Your task to perform on an android device: open wifi settings Image 0: 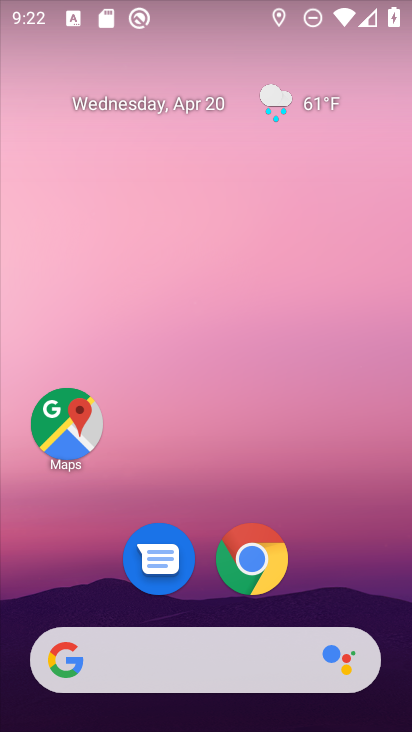
Step 0: drag from (391, 622) to (361, 280)
Your task to perform on an android device: open wifi settings Image 1: 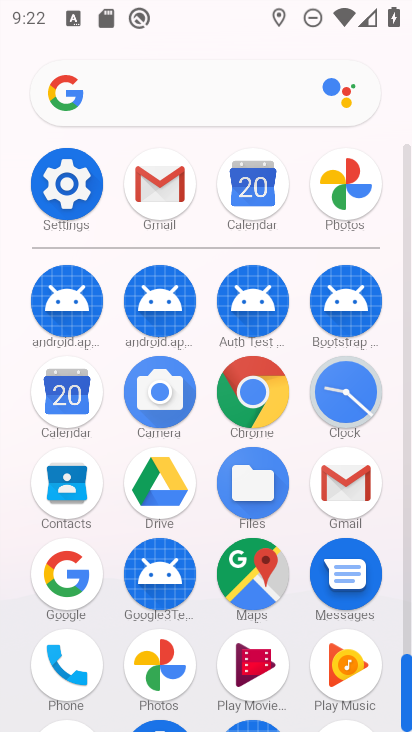
Step 1: drag from (405, 643) to (397, 574)
Your task to perform on an android device: open wifi settings Image 2: 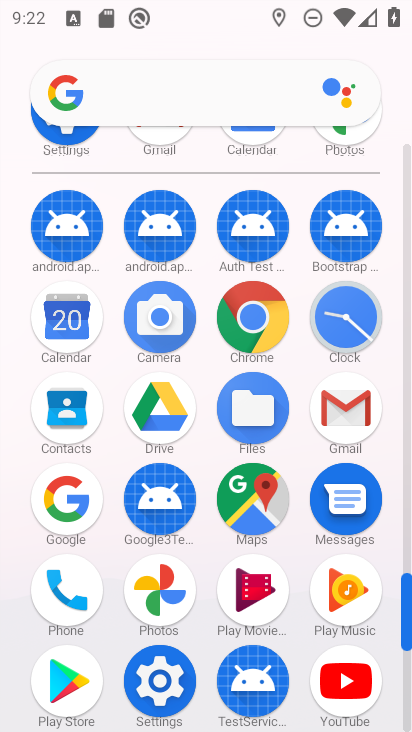
Step 2: click (159, 684)
Your task to perform on an android device: open wifi settings Image 3: 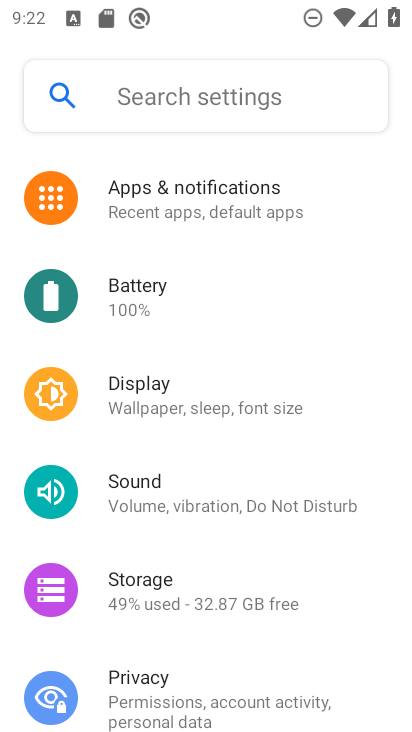
Step 3: drag from (242, 240) to (240, 440)
Your task to perform on an android device: open wifi settings Image 4: 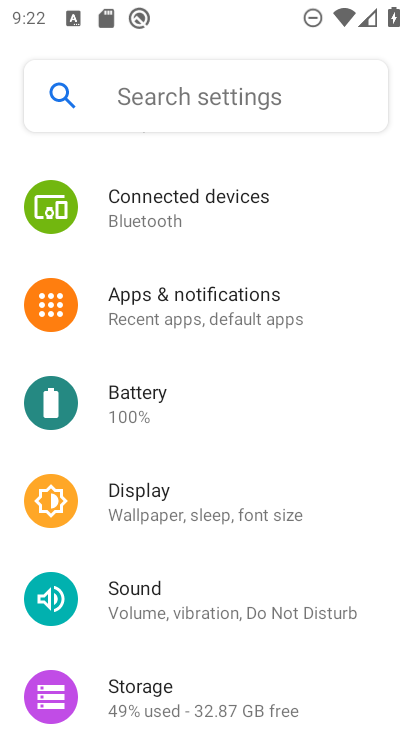
Step 4: drag from (258, 356) to (225, 599)
Your task to perform on an android device: open wifi settings Image 5: 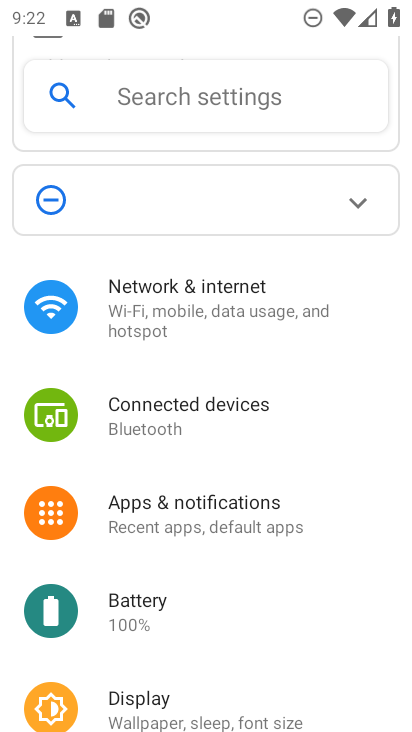
Step 5: click (165, 289)
Your task to perform on an android device: open wifi settings Image 6: 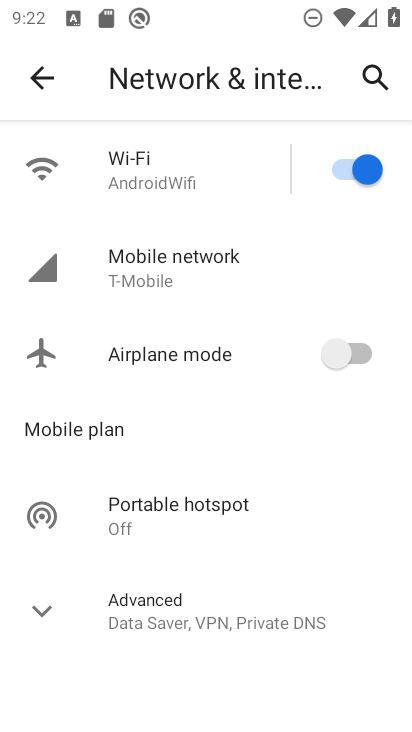
Step 6: click (134, 168)
Your task to perform on an android device: open wifi settings Image 7: 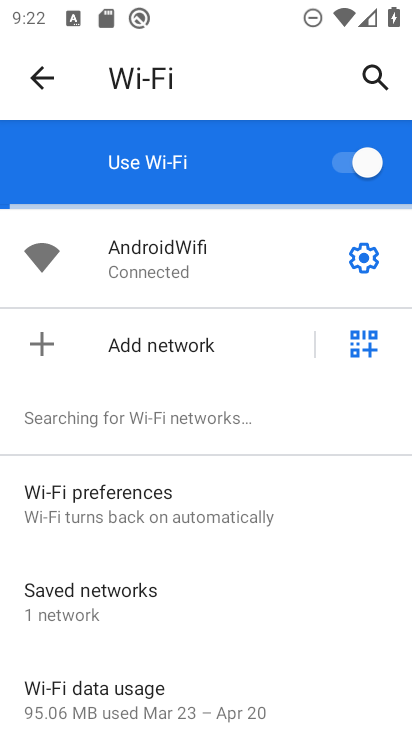
Step 7: drag from (207, 610) to (224, 641)
Your task to perform on an android device: open wifi settings Image 8: 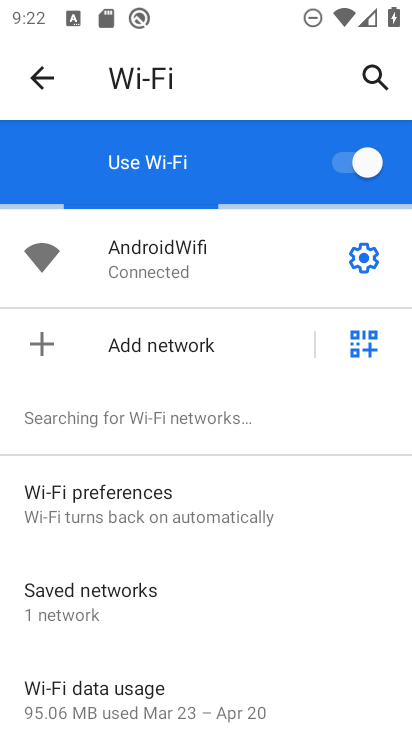
Step 8: click (363, 258)
Your task to perform on an android device: open wifi settings Image 9: 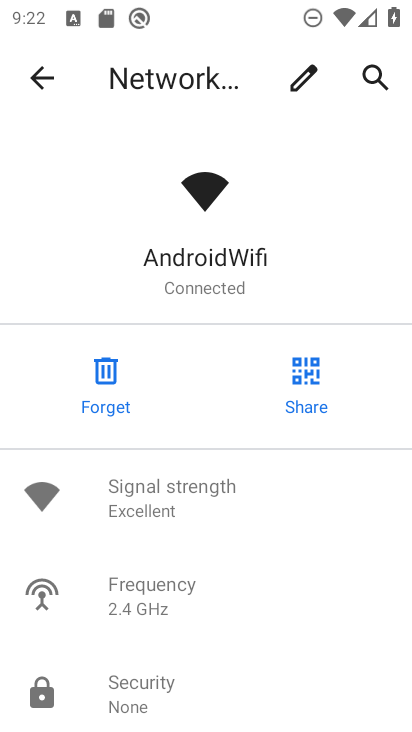
Step 9: drag from (224, 614) to (242, 210)
Your task to perform on an android device: open wifi settings Image 10: 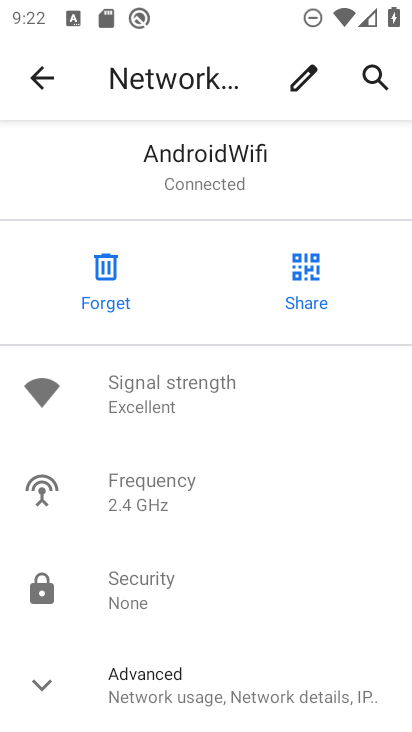
Step 10: click (42, 692)
Your task to perform on an android device: open wifi settings Image 11: 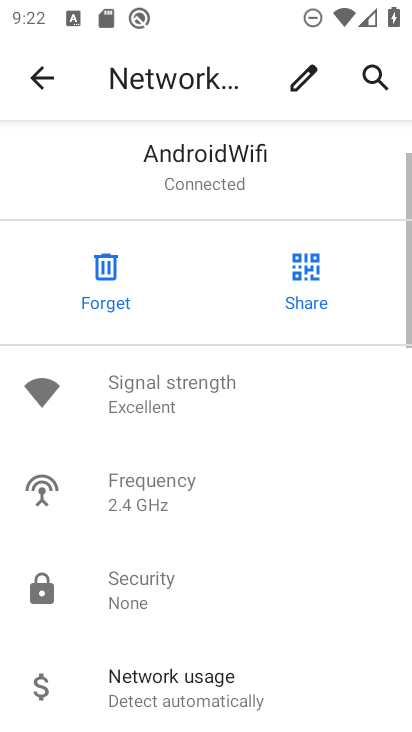
Step 11: task complete